Your task to perform on an android device: change the clock style Image 0: 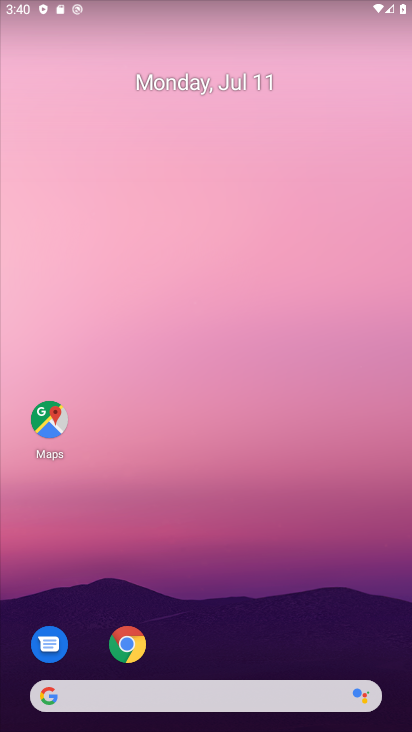
Step 0: press home button
Your task to perform on an android device: change the clock style Image 1: 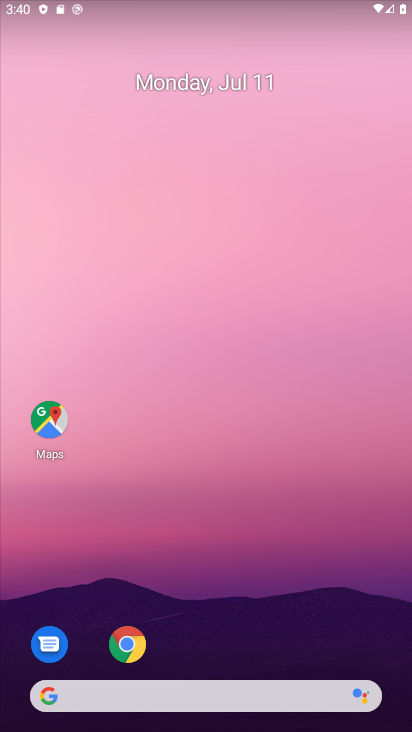
Step 1: drag from (214, 656) to (219, 36)
Your task to perform on an android device: change the clock style Image 2: 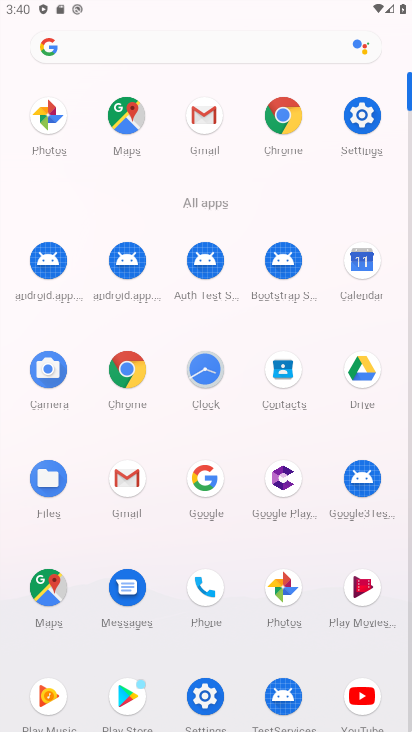
Step 2: click (203, 364)
Your task to perform on an android device: change the clock style Image 3: 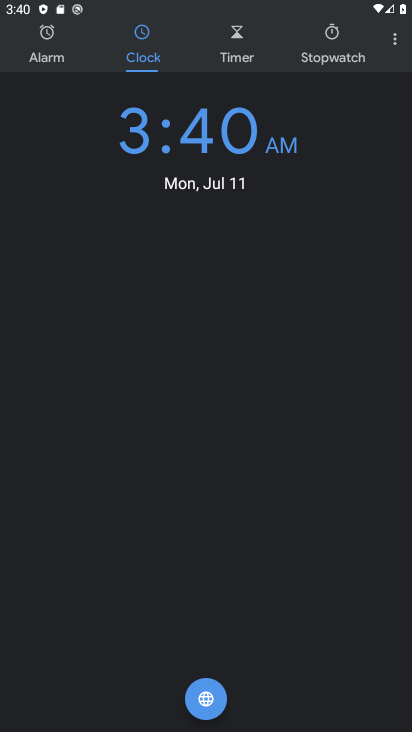
Step 3: click (393, 40)
Your task to perform on an android device: change the clock style Image 4: 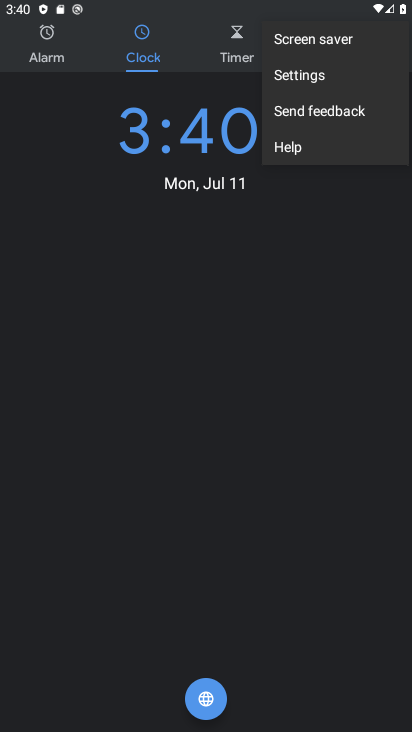
Step 4: click (336, 74)
Your task to perform on an android device: change the clock style Image 5: 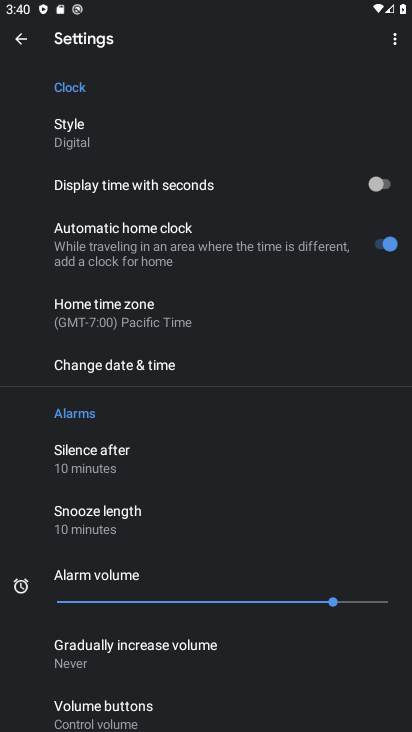
Step 5: click (109, 127)
Your task to perform on an android device: change the clock style Image 6: 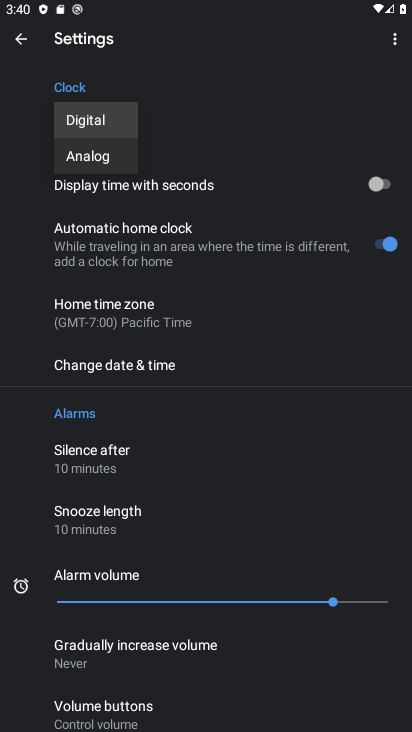
Step 6: click (113, 157)
Your task to perform on an android device: change the clock style Image 7: 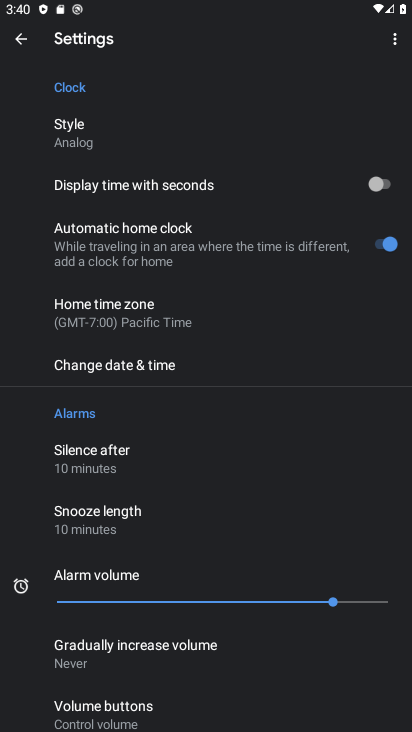
Step 7: task complete